Your task to perform on an android device: Clear the cart on amazon. Search for "bose soundsport free" on amazon, select the first entry, and add it to the cart. Image 0: 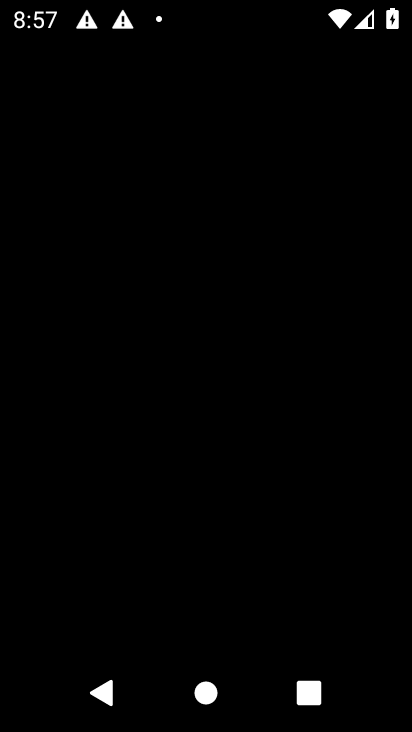
Step 0: press home button
Your task to perform on an android device: Clear the cart on amazon. Search for "bose soundsport free" on amazon, select the first entry, and add it to the cart. Image 1: 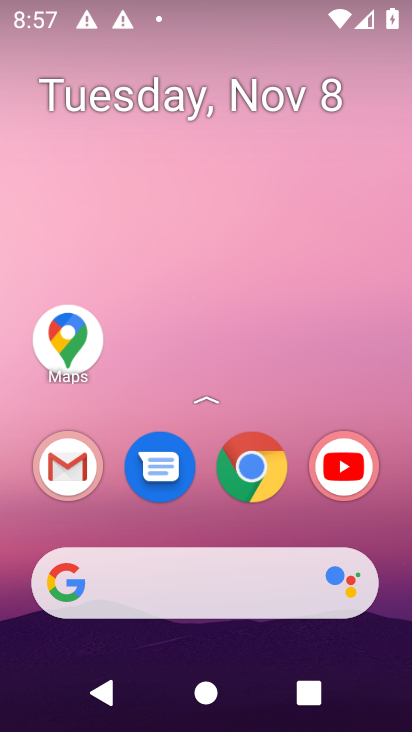
Step 1: click (210, 566)
Your task to perform on an android device: Clear the cart on amazon. Search for "bose soundsport free" on amazon, select the first entry, and add it to the cart. Image 2: 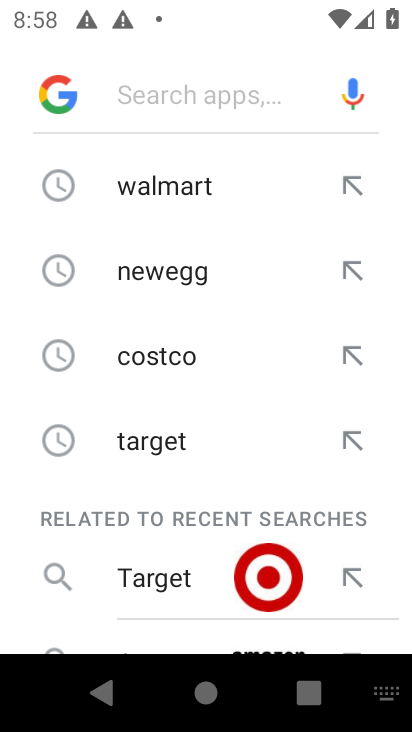
Step 2: type "bose soundsport free"
Your task to perform on an android device: Clear the cart on amazon. Search for "bose soundsport free" on amazon, select the first entry, and add it to the cart. Image 3: 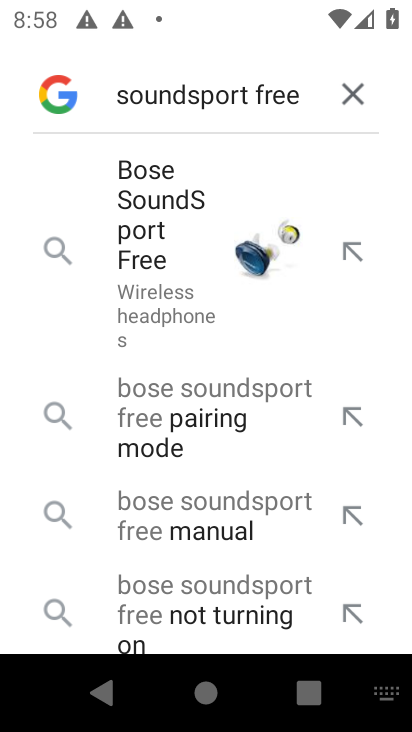
Step 3: click (200, 202)
Your task to perform on an android device: Clear the cart on amazon. Search for "bose soundsport free" on amazon, select the first entry, and add it to the cart. Image 4: 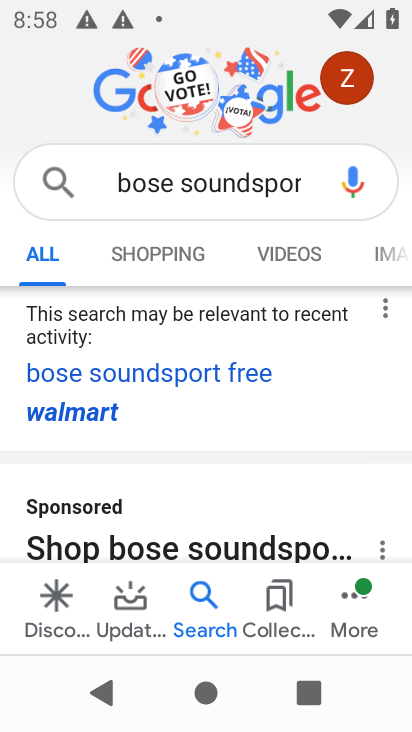
Step 4: click (176, 379)
Your task to perform on an android device: Clear the cart on amazon. Search for "bose soundsport free" on amazon, select the first entry, and add it to the cart. Image 5: 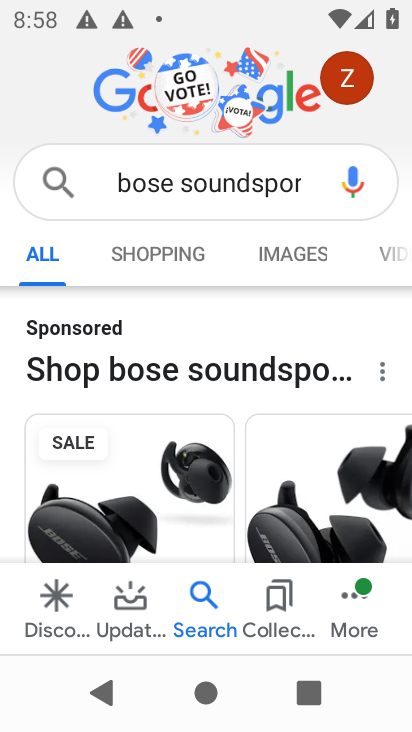
Step 5: task complete